Your task to perform on an android device: Is it going to rain tomorrow? Image 0: 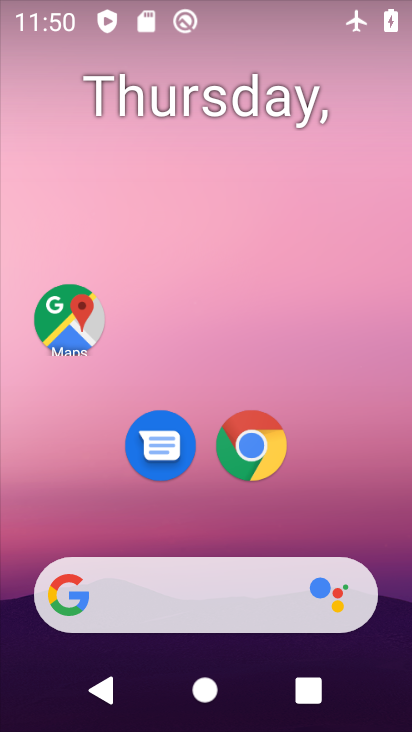
Step 0: drag from (383, 555) to (316, 64)
Your task to perform on an android device: Is it going to rain tomorrow? Image 1: 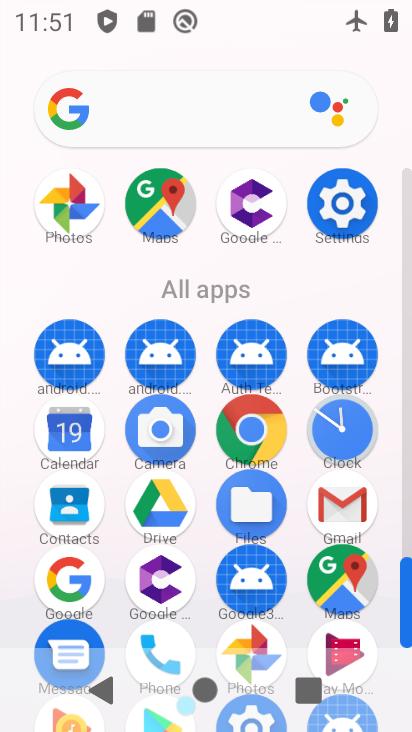
Step 1: click (258, 449)
Your task to perform on an android device: Is it going to rain tomorrow? Image 2: 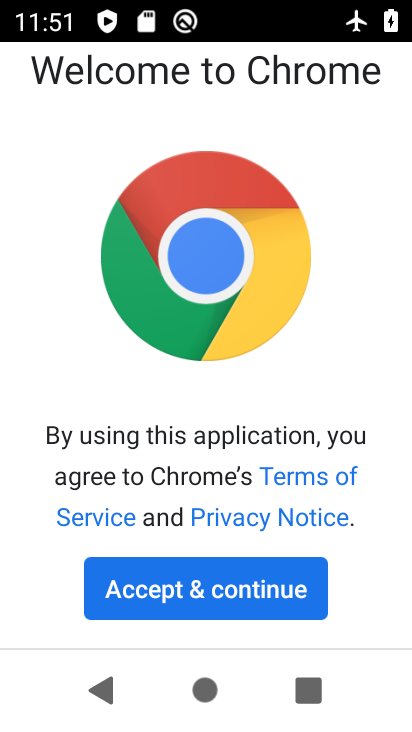
Step 2: click (242, 596)
Your task to perform on an android device: Is it going to rain tomorrow? Image 3: 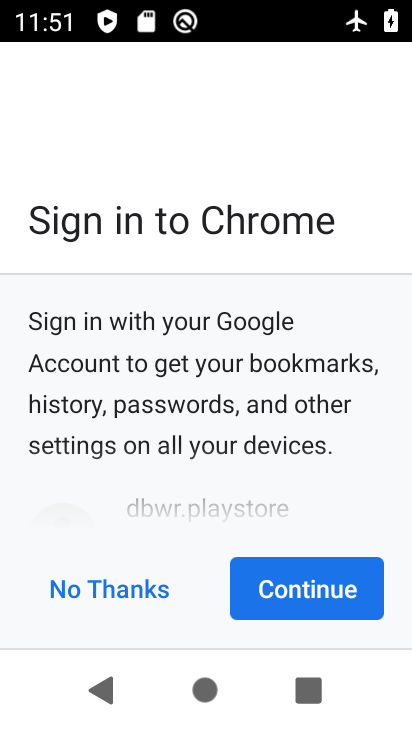
Step 3: click (273, 595)
Your task to perform on an android device: Is it going to rain tomorrow? Image 4: 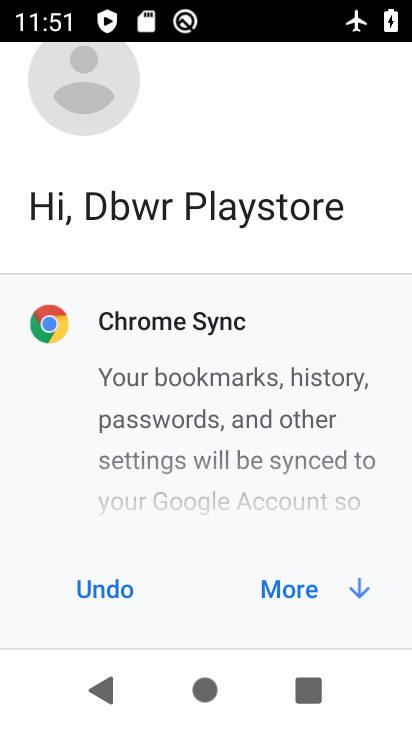
Step 4: click (273, 595)
Your task to perform on an android device: Is it going to rain tomorrow? Image 5: 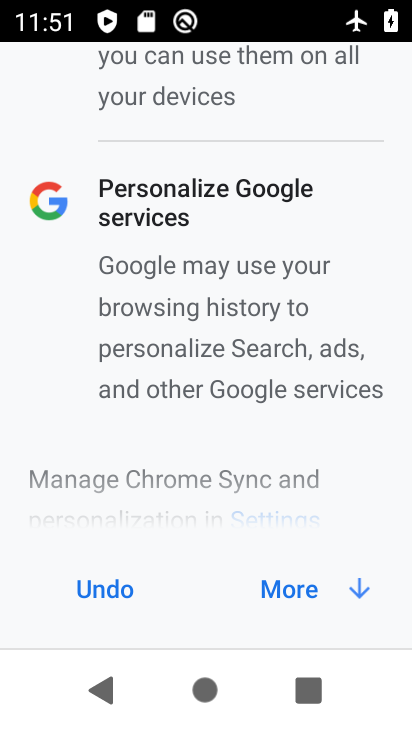
Step 5: click (273, 595)
Your task to perform on an android device: Is it going to rain tomorrow? Image 6: 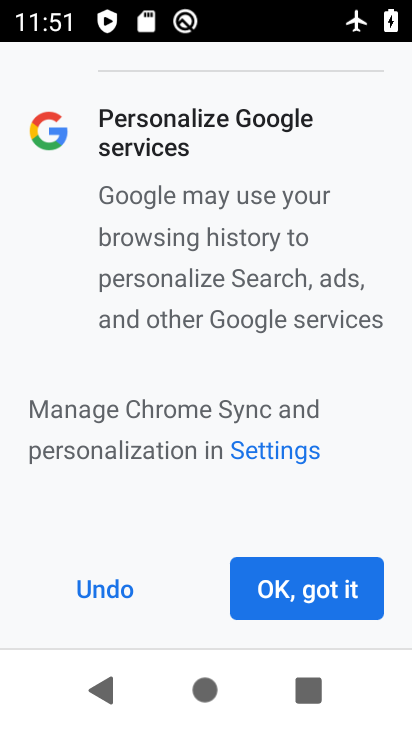
Step 6: click (273, 595)
Your task to perform on an android device: Is it going to rain tomorrow? Image 7: 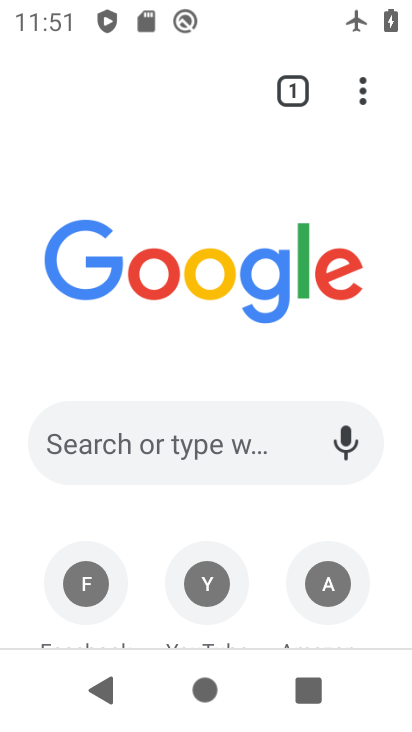
Step 7: click (146, 124)
Your task to perform on an android device: Is it going to rain tomorrow? Image 8: 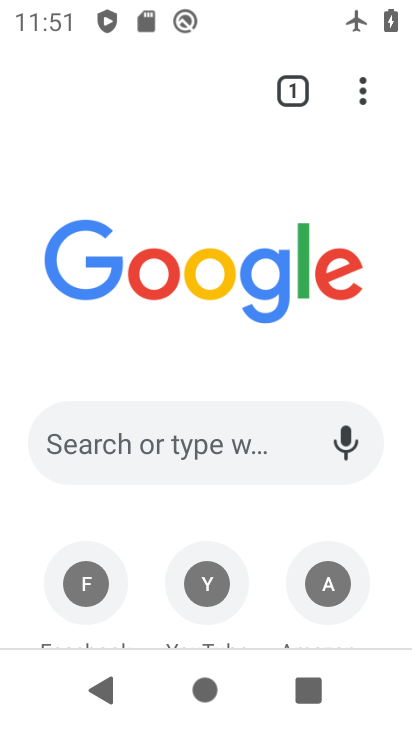
Step 8: click (233, 476)
Your task to perform on an android device: Is it going to rain tomorrow? Image 9: 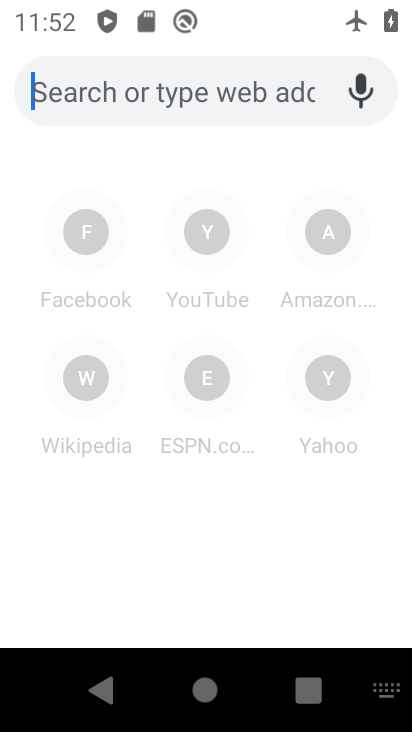
Step 9: type "Is it going to rain tomorrow?"
Your task to perform on an android device: Is it going to rain tomorrow? Image 10: 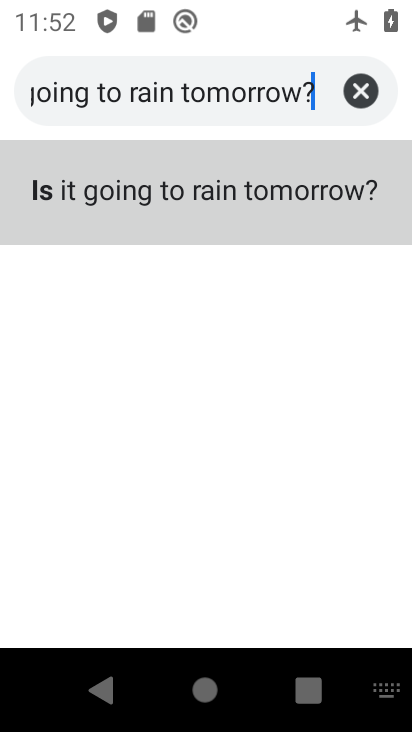
Step 10: click (251, 180)
Your task to perform on an android device: Is it going to rain tomorrow? Image 11: 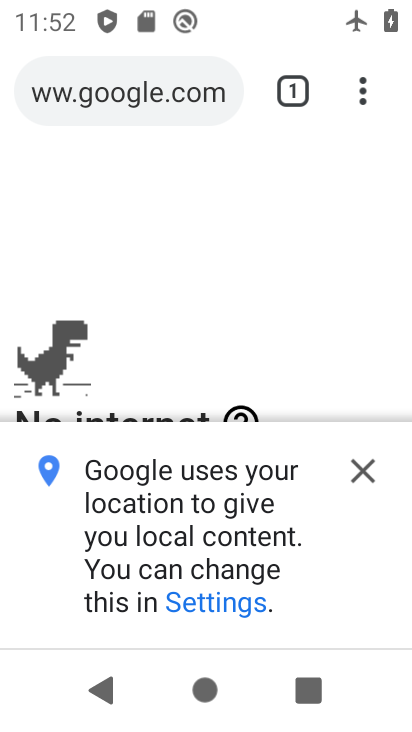
Step 11: click (365, 460)
Your task to perform on an android device: Is it going to rain tomorrow? Image 12: 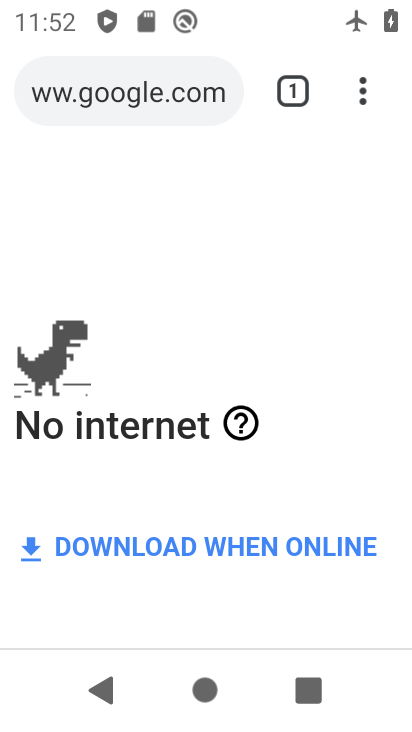
Step 12: task complete